Your task to perform on an android device: View the shopping cart on target.com. Search for bose soundlink mini on target.com, select the first entry, add it to the cart, then select checkout. Image 0: 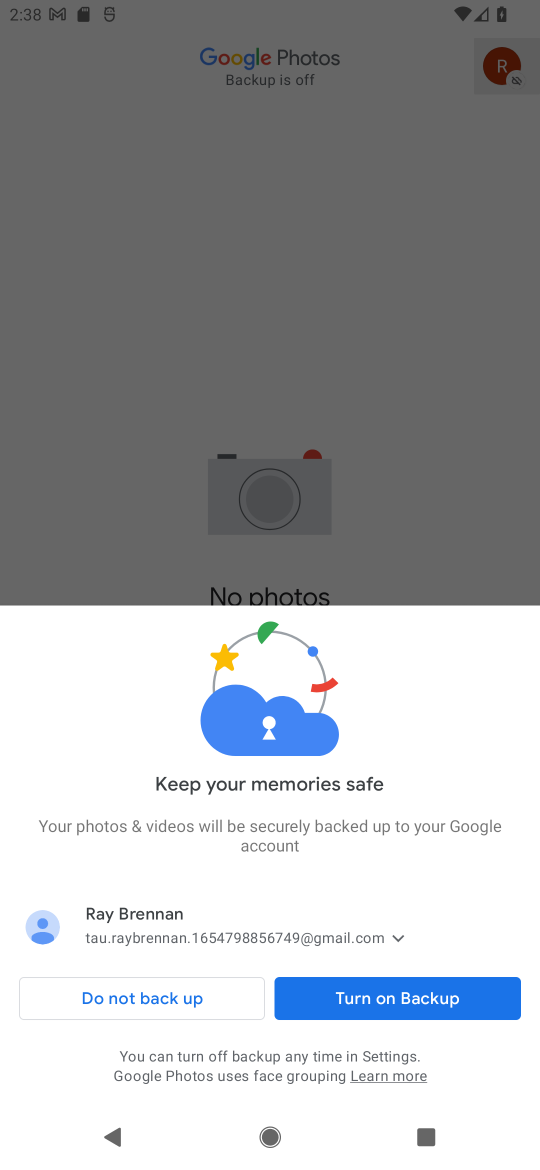
Step 0: press home button
Your task to perform on an android device: View the shopping cart on target.com. Search for bose soundlink mini on target.com, select the first entry, add it to the cart, then select checkout. Image 1: 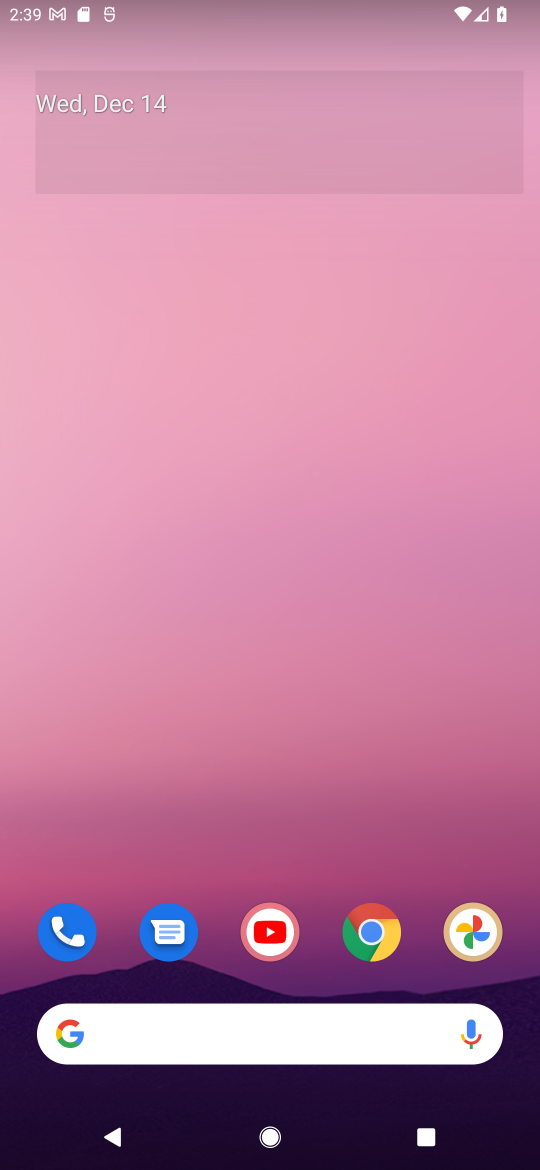
Step 1: click (224, 1029)
Your task to perform on an android device: View the shopping cart on target.com. Search for bose soundlink mini on target.com, select the first entry, add it to the cart, then select checkout. Image 2: 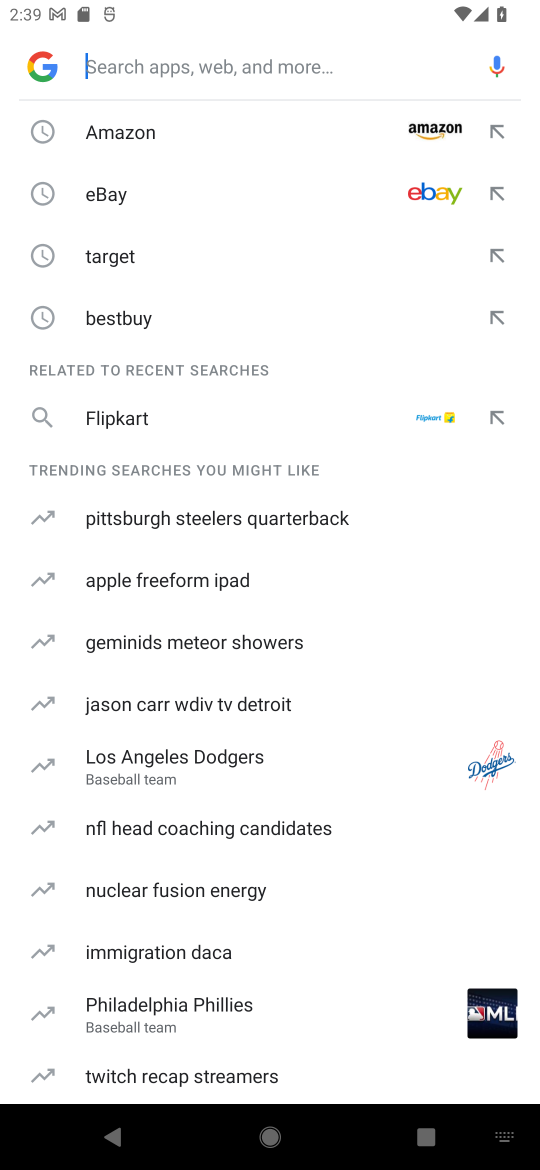
Step 2: click (95, 257)
Your task to perform on an android device: View the shopping cart on target.com. Search for bose soundlink mini on target.com, select the first entry, add it to the cart, then select checkout. Image 3: 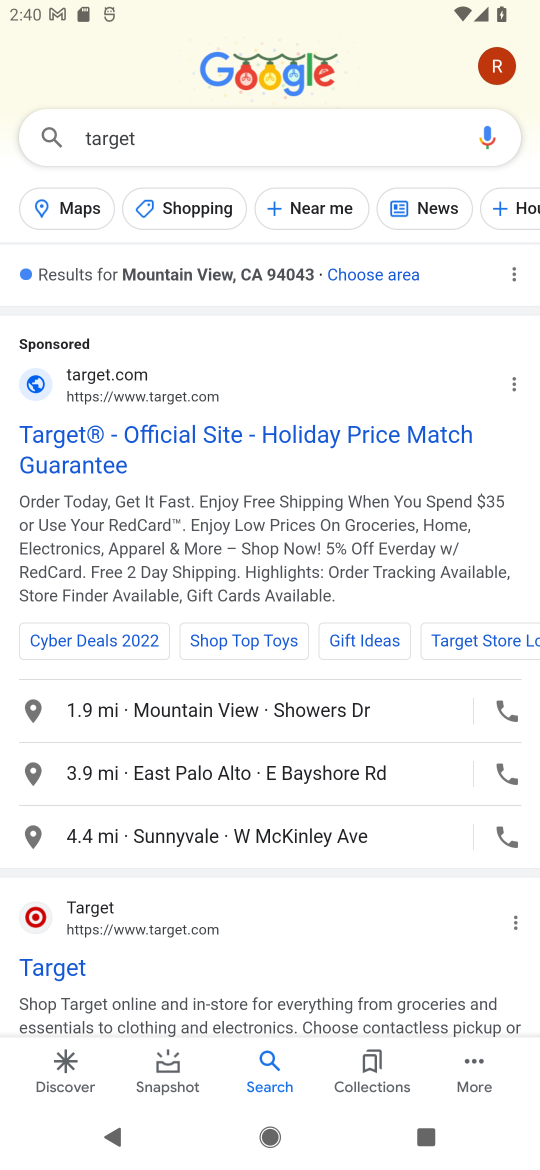
Step 3: click (55, 961)
Your task to perform on an android device: View the shopping cart on target.com. Search for bose soundlink mini on target.com, select the first entry, add it to the cart, then select checkout. Image 4: 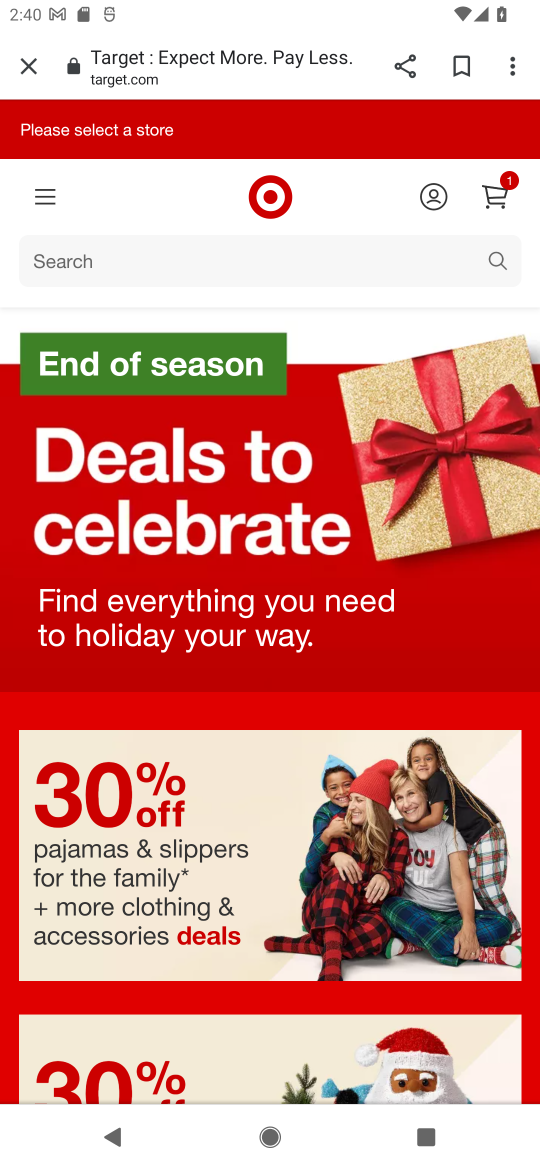
Step 4: click (488, 199)
Your task to perform on an android device: View the shopping cart on target.com. Search for bose soundlink mini on target.com, select the first entry, add it to the cart, then select checkout. Image 5: 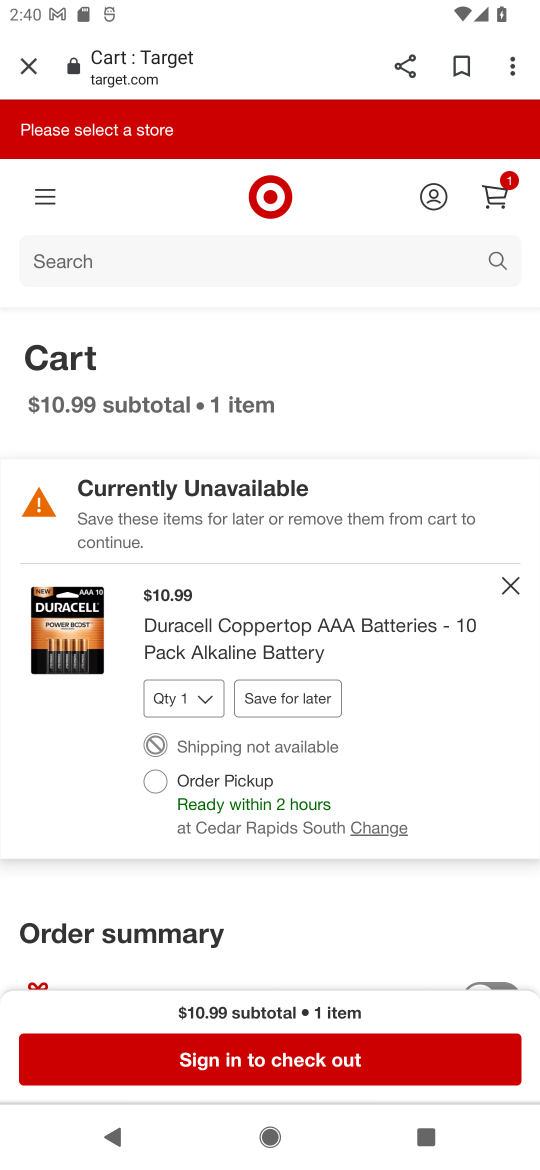
Step 5: click (172, 272)
Your task to perform on an android device: View the shopping cart on target.com. Search for bose soundlink mini on target.com, select the first entry, add it to the cart, then select checkout. Image 6: 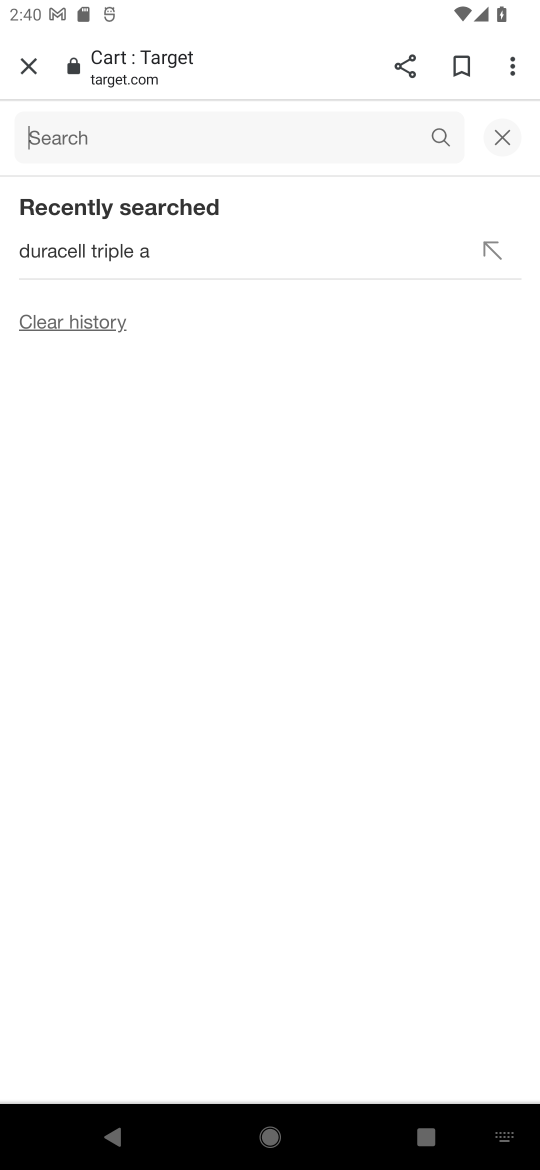
Step 6: type "bose soundlink mini"
Your task to perform on an android device: View the shopping cart on target.com. Search for bose soundlink mini on target.com, select the first entry, add it to the cart, then select checkout. Image 7: 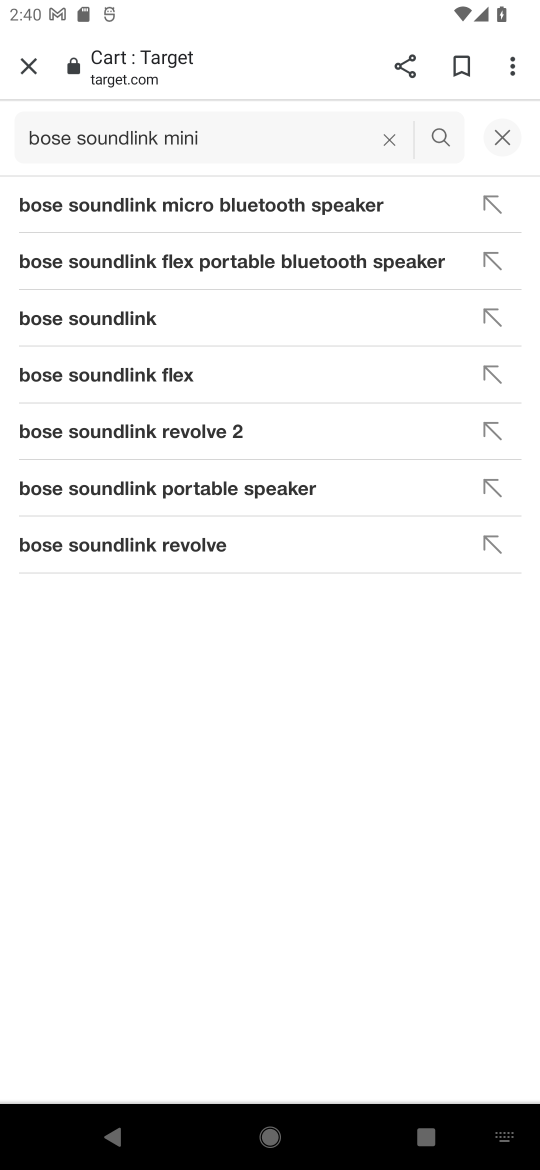
Step 7: click (436, 128)
Your task to perform on an android device: View the shopping cart on target.com. Search for bose soundlink mini on target.com, select the first entry, add it to the cart, then select checkout. Image 8: 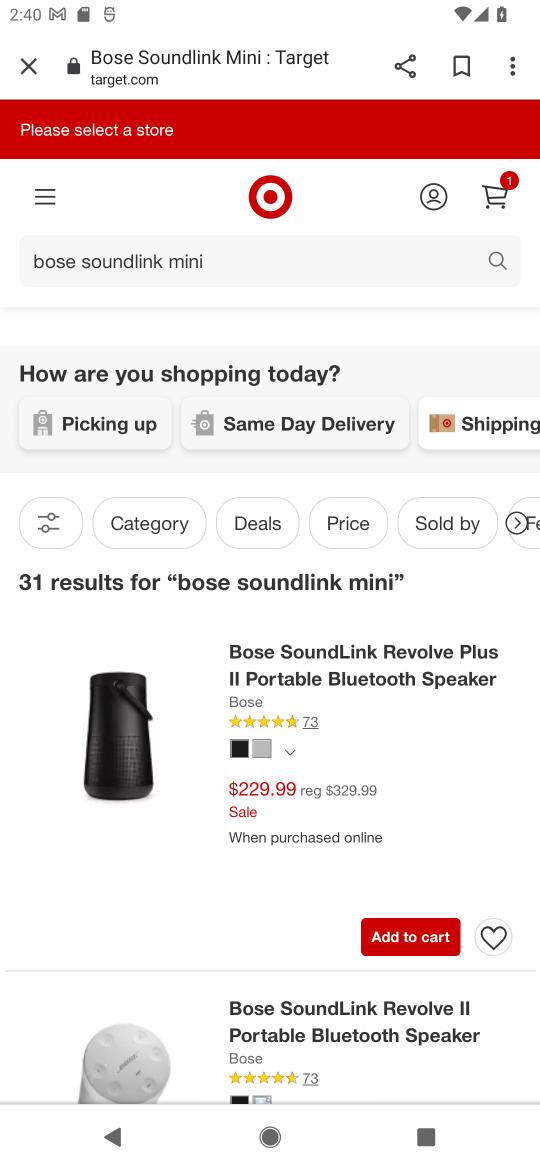
Step 8: click (403, 929)
Your task to perform on an android device: View the shopping cart on target.com. Search for bose soundlink mini on target.com, select the first entry, add it to the cart, then select checkout. Image 9: 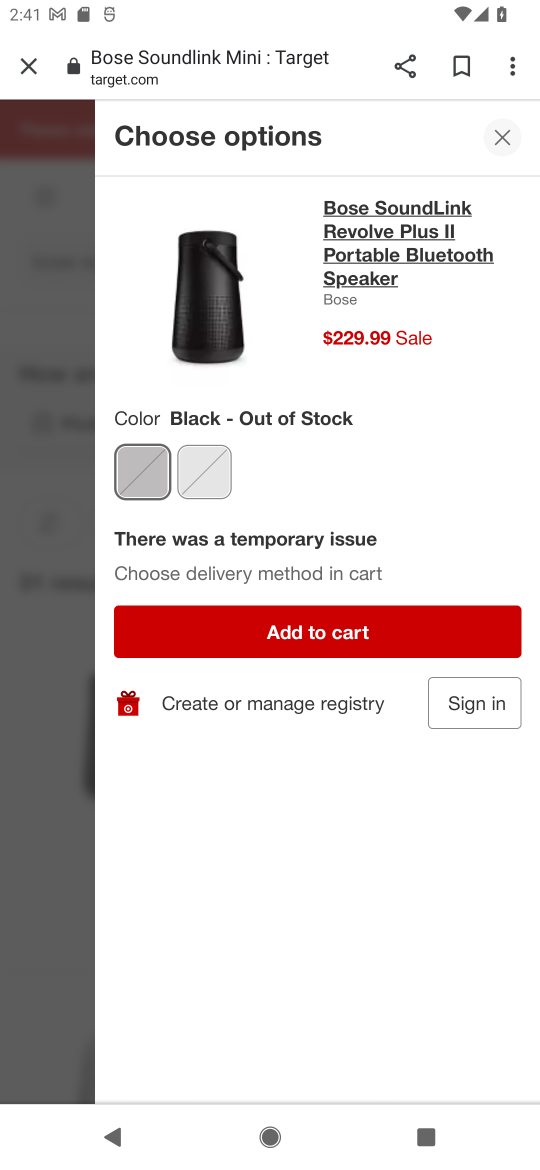
Step 9: click (146, 480)
Your task to perform on an android device: View the shopping cart on target.com. Search for bose soundlink mini on target.com, select the first entry, add it to the cart, then select checkout. Image 10: 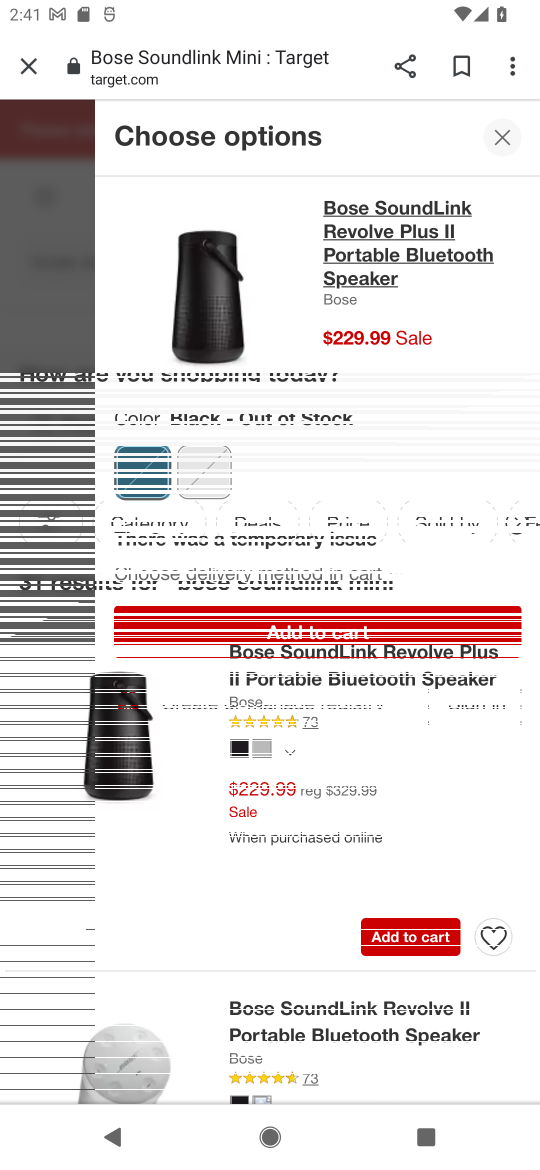
Step 10: click (228, 480)
Your task to perform on an android device: View the shopping cart on target.com. Search for bose soundlink mini on target.com, select the first entry, add it to the cart, then select checkout. Image 11: 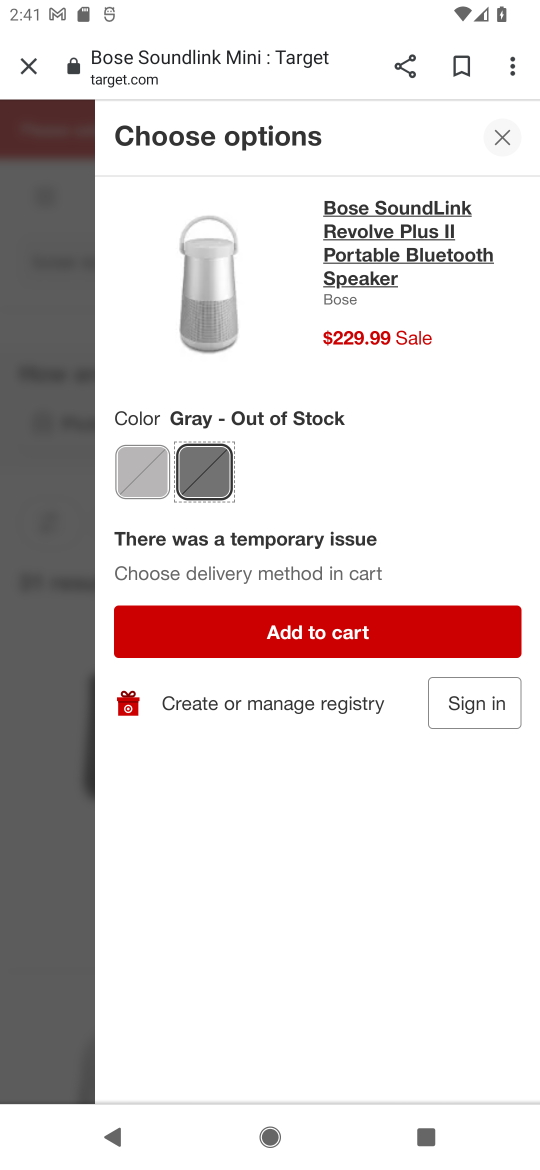
Step 11: task complete